Your task to perform on an android device: allow cookies in the chrome app Image 0: 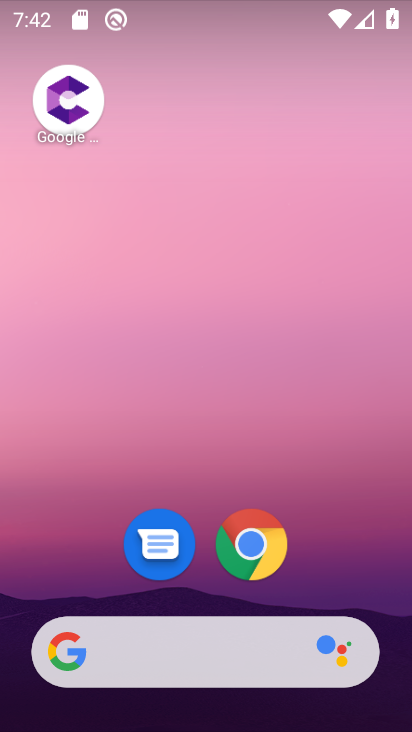
Step 0: click (248, 549)
Your task to perform on an android device: allow cookies in the chrome app Image 1: 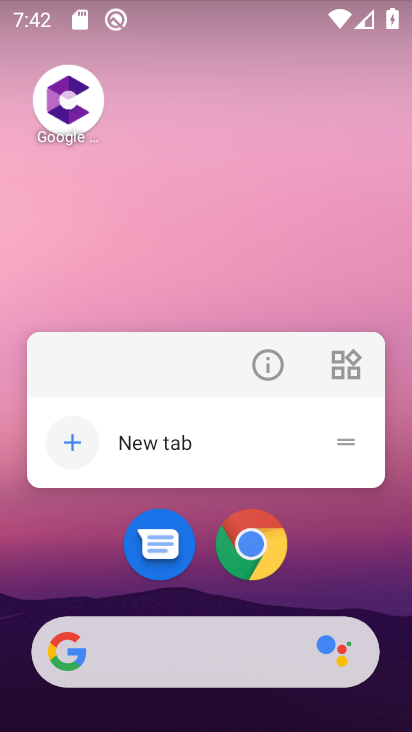
Step 1: click (256, 540)
Your task to perform on an android device: allow cookies in the chrome app Image 2: 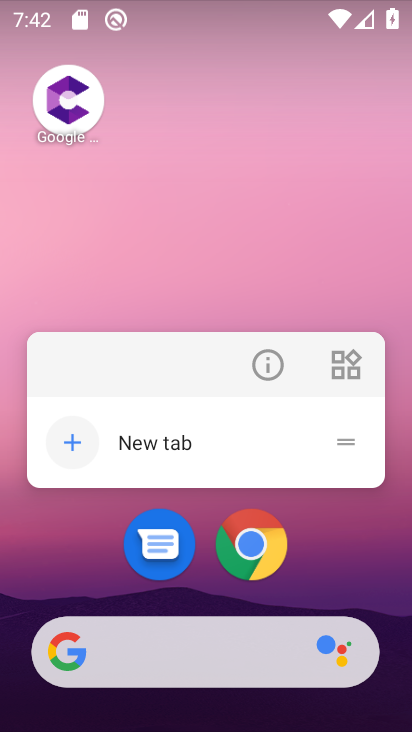
Step 2: click (263, 535)
Your task to perform on an android device: allow cookies in the chrome app Image 3: 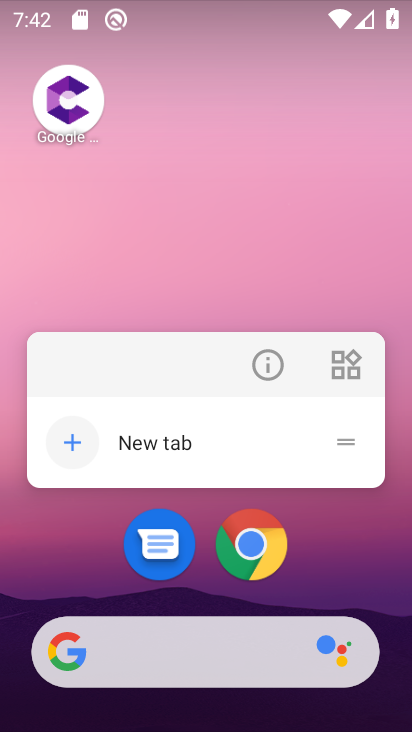
Step 3: click (262, 534)
Your task to perform on an android device: allow cookies in the chrome app Image 4: 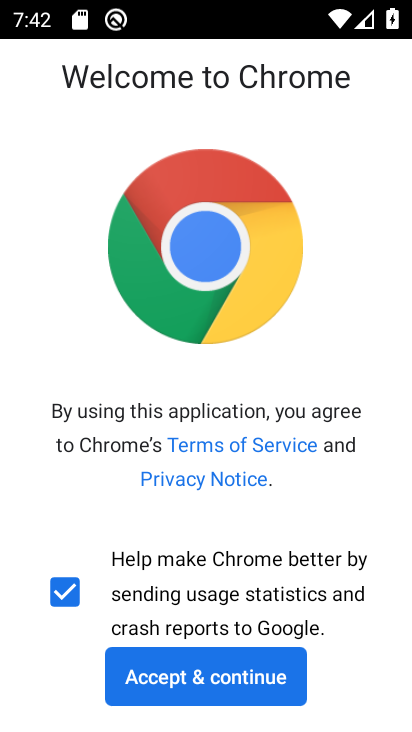
Step 4: click (234, 645)
Your task to perform on an android device: allow cookies in the chrome app Image 5: 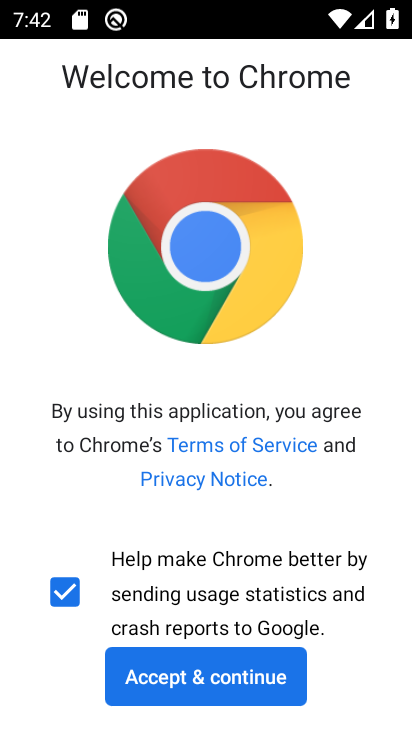
Step 5: click (230, 676)
Your task to perform on an android device: allow cookies in the chrome app Image 6: 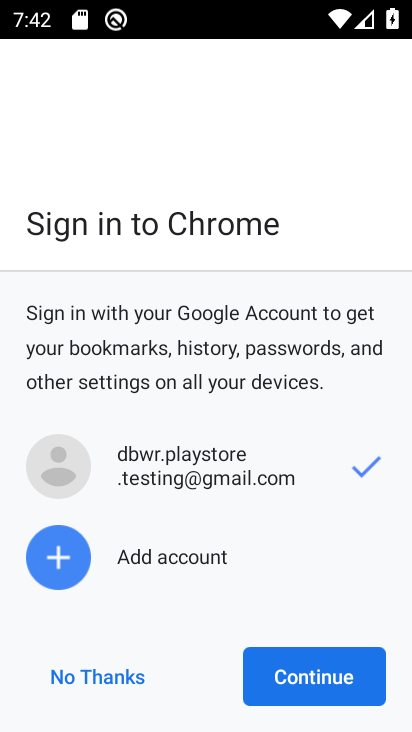
Step 6: click (273, 665)
Your task to perform on an android device: allow cookies in the chrome app Image 7: 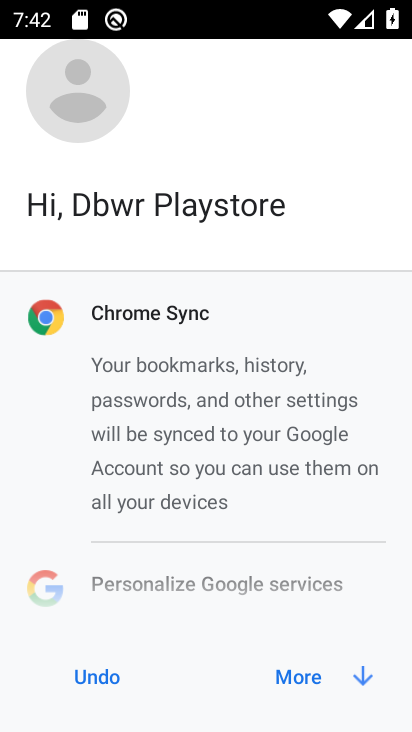
Step 7: click (285, 675)
Your task to perform on an android device: allow cookies in the chrome app Image 8: 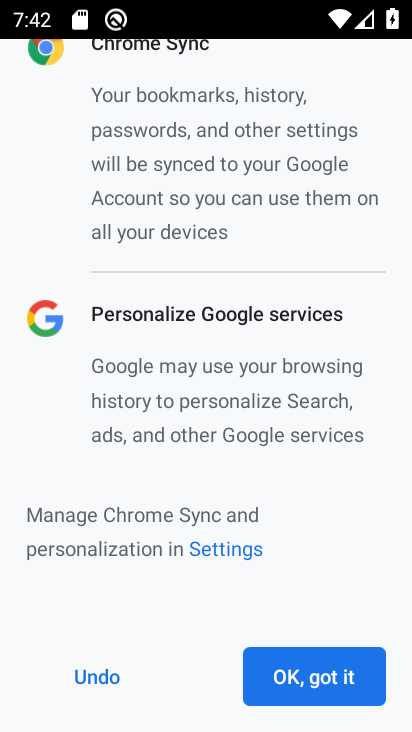
Step 8: click (286, 675)
Your task to perform on an android device: allow cookies in the chrome app Image 9: 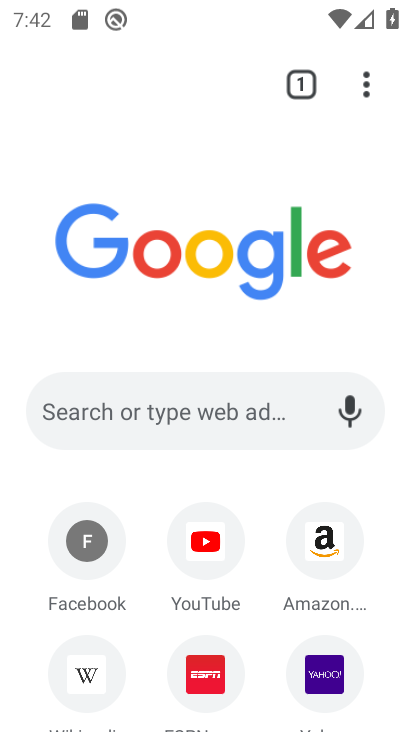
Step 9: click (371, 79)
Your task to perform on an android device: allow cookies in the chrome app Image 10: 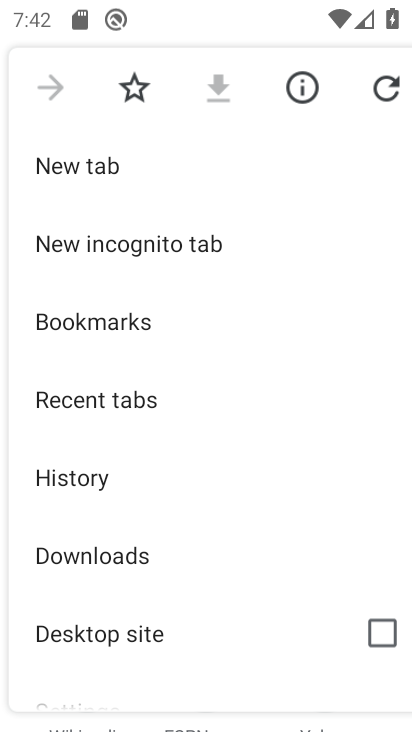
Step 10: drag from (149, 609) to (159, 291)
Your task to perform on an android device: allow cookies in the chrome app Image 11: 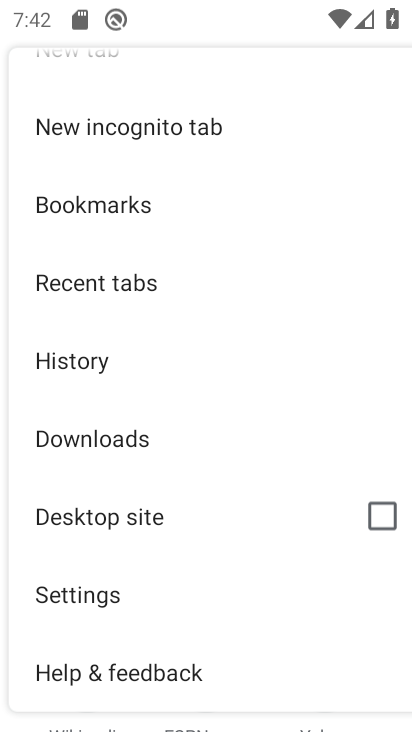
Step 11: click (91, 598)
Your task to perform on an android device: allow cookies in the chrome app Image 12: 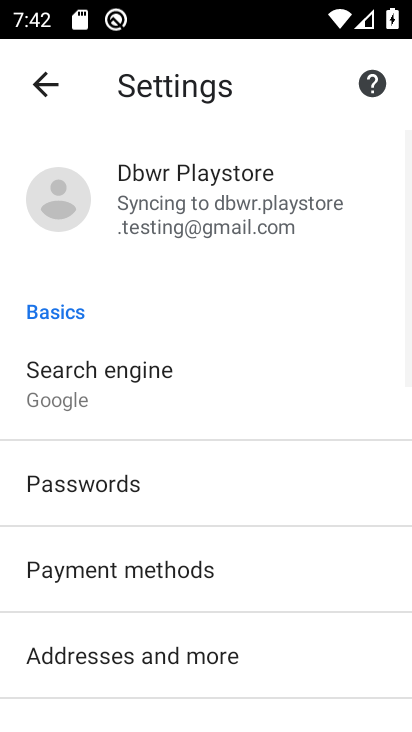
Step 12: drag from (118, 580) to (218, 295)
Your task to perform on an android device: allow cookies in the chrome app Image 13: 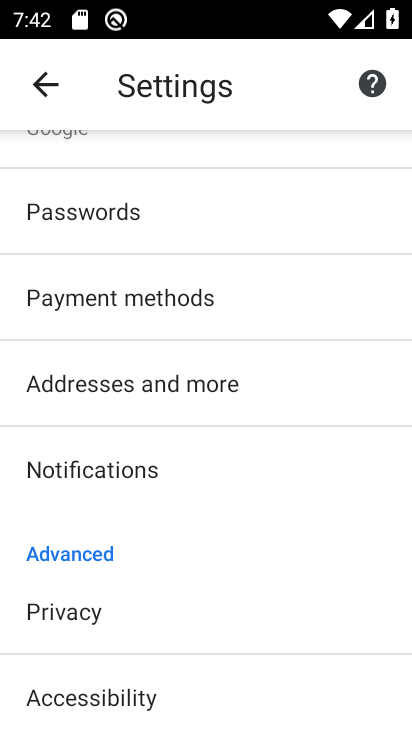
Step 13: drag from (149, 642) to (281, 310)
Your task to perform on an android device: allow cookies in the chrome app Image 14: 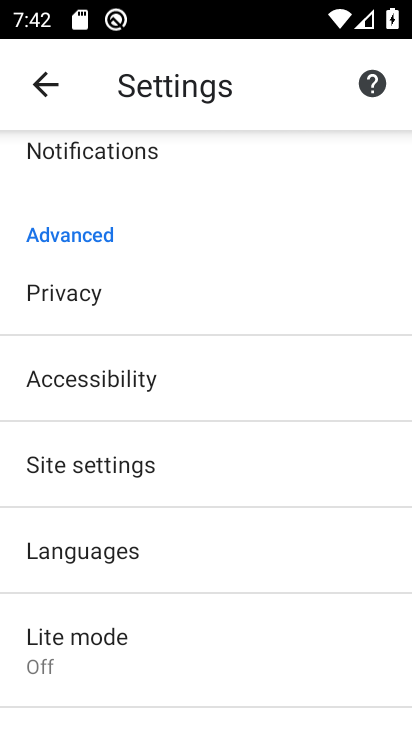
Step 14: click (122, 545)
Your task to perform on an android device: allow cookies in the chrome app Image 15: 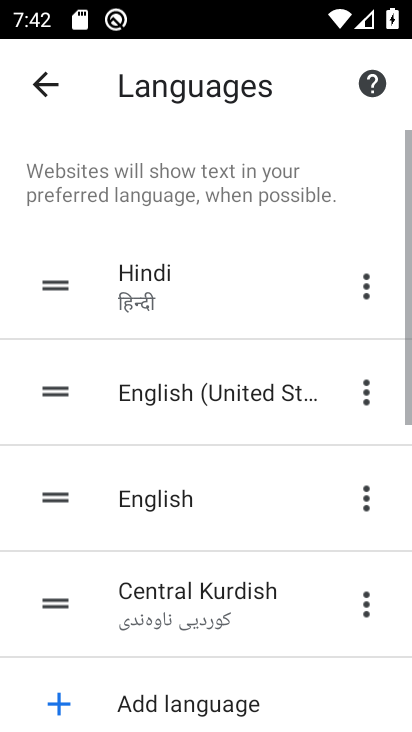
Step 15: click (46, 77)
Your task to perform on an android device: allow cookies in the chrome app Image 16: 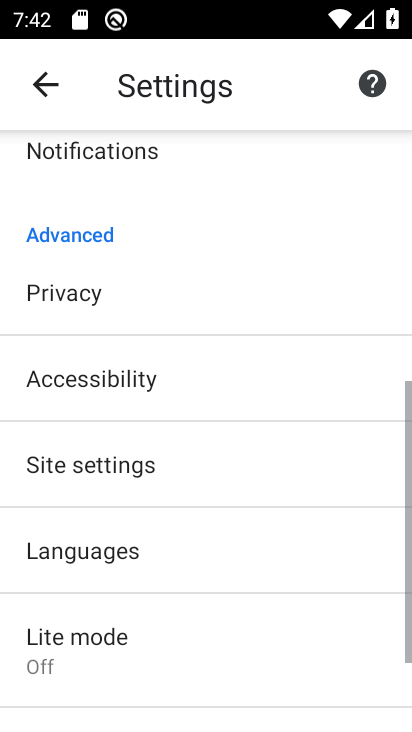
Step 16: click (185, 458)
Your task to perform on an android device: allow cookies in the chrome app Image 17: 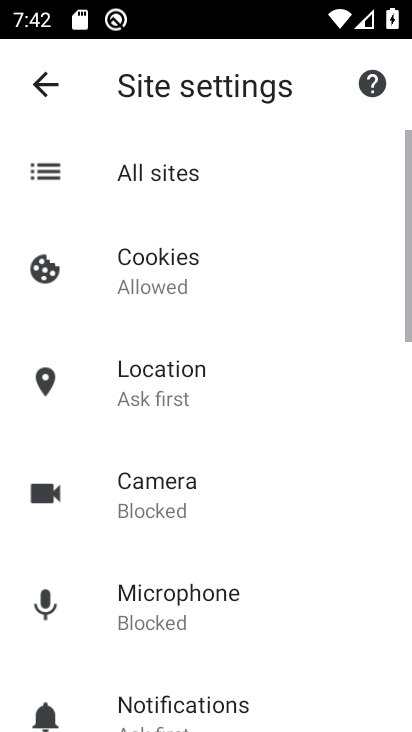
Step 17: drag from (231, 618) to (251, 534)
Your task to perform on an android device: allow cookies in the chrome app Image 18: 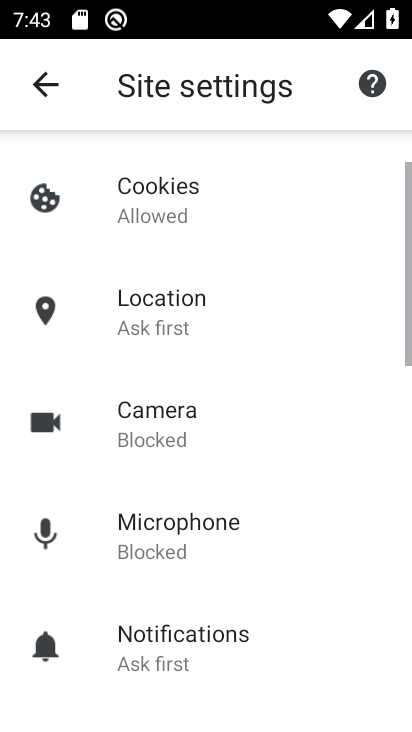
Step 18: click (208, 191)
Your task to perform on an android device: allow cookies in the chrome app Image 19: 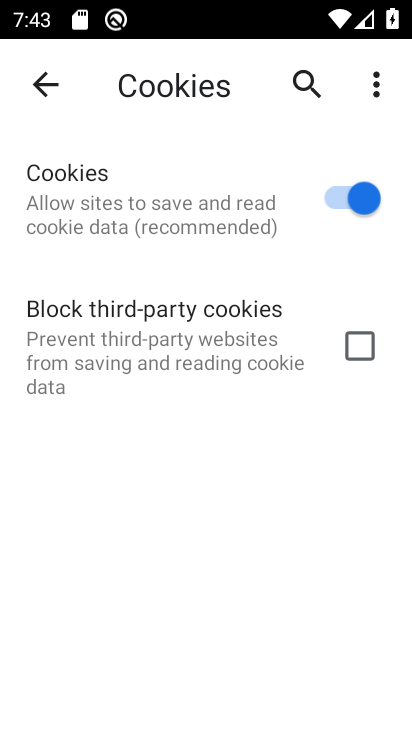
Step 19: task complete